Your task to perform on an android device: stop showing notifications on the lock screen Image 0: 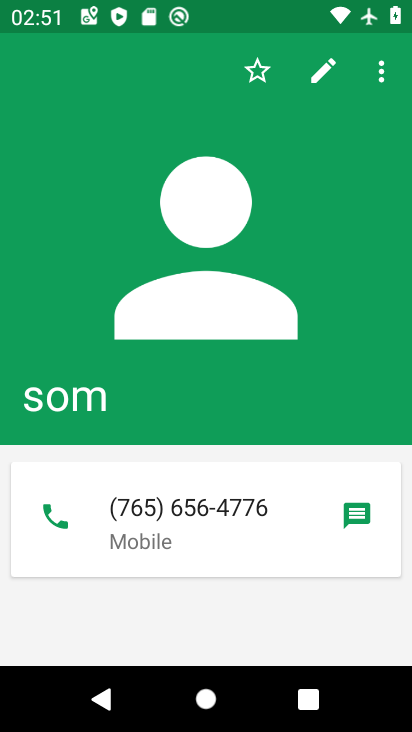
Step 0: press home button
Your task to perform on an android device: stop showing notifications on the lock screen Image 1: 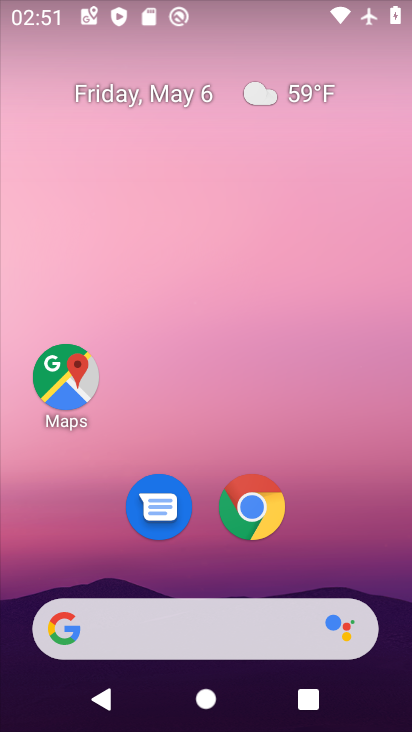
Step 1: drag from (333, 573) to (365, 144)
Your task to perform on an android device: stop showing notifications on the lock screen Image 2: 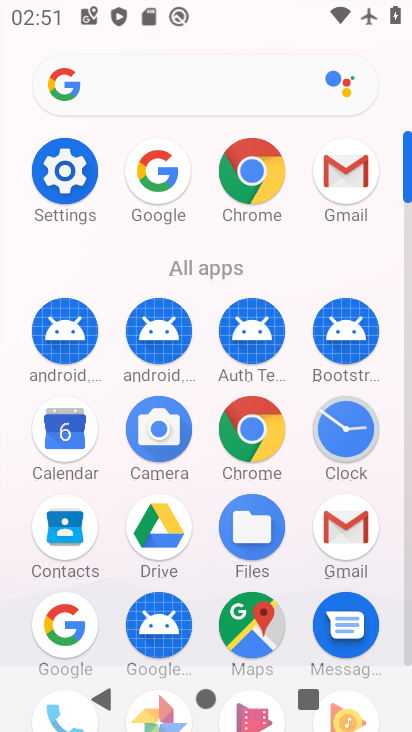
Step 2: click (49, 177)
Your task to perform on an android device: stop showing notifications on the lock screen Image 3: 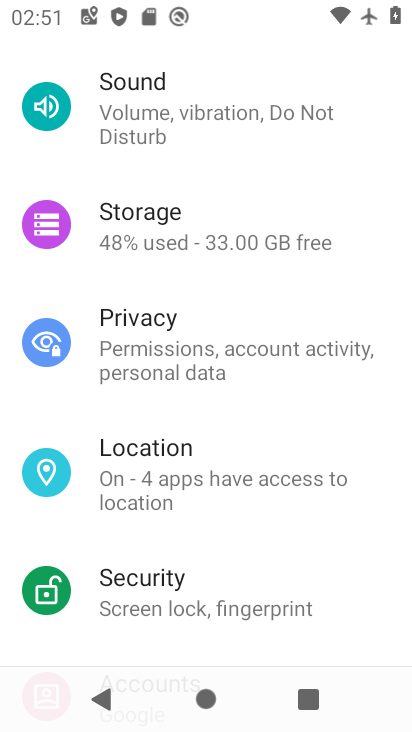
Step 3: drag from (205, 243) to (214, 674)
Your task to perform on an android device: stop showing notifications on the lock screen Image 4: 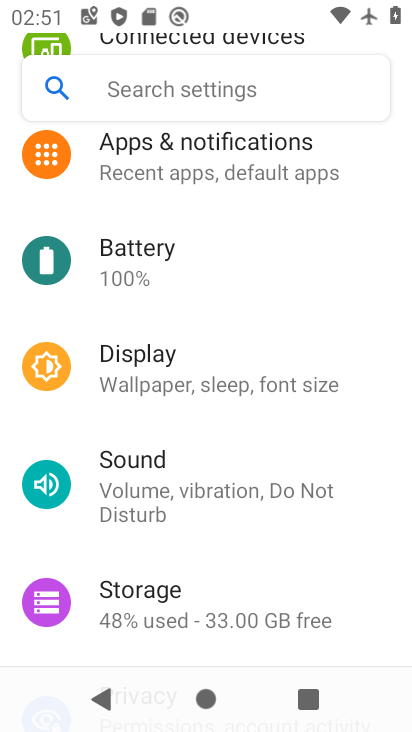
Step 4: click (253, 176)
Your task to perform on an android device: stop showing notifications on the lock screen Image 5: 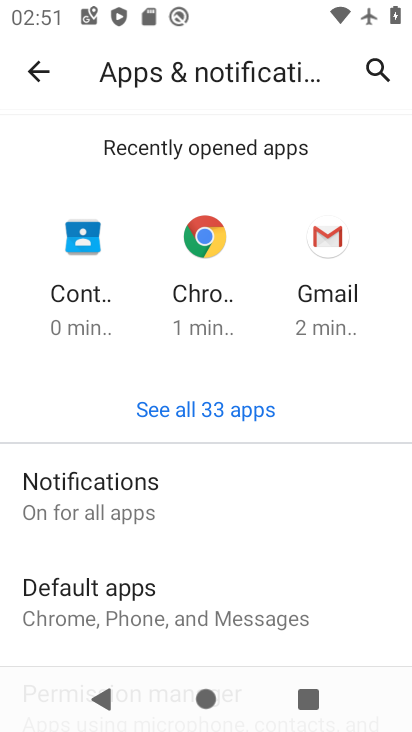
Step 5: drag from (228, 595) to (228, 308)
Your task to perform on an android device: stop showing notifications on the lock screen Image 6: 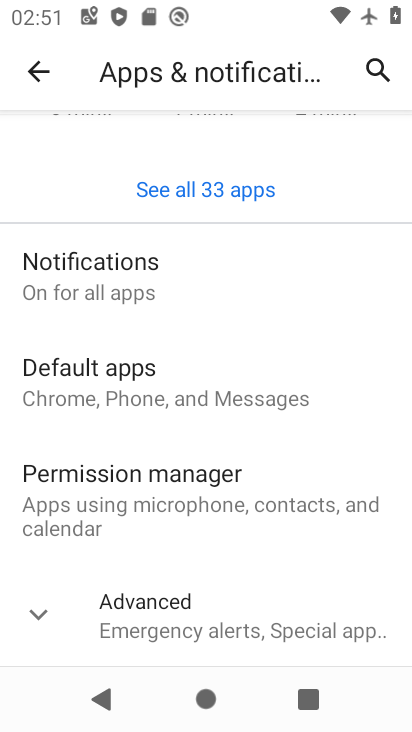
Step 6: click (144, 294)
Your task to perform on an android device: stop showing notifications on the lock screen Image 7: 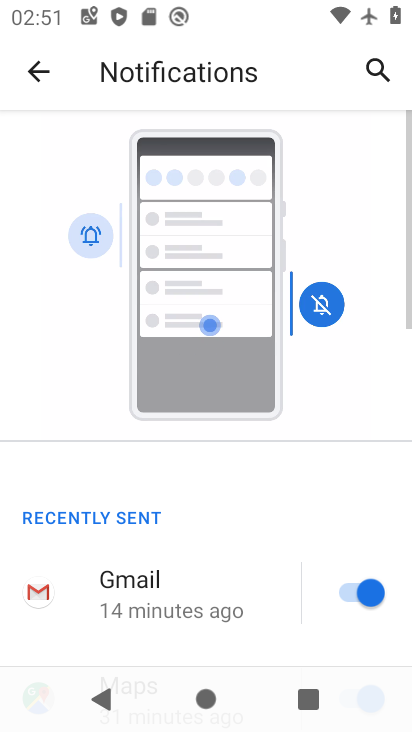
Step 7: drag from (222, 575) to (243, 229)
Your task to perform on an android device: stop showing notifications on the lock screen Image 8: 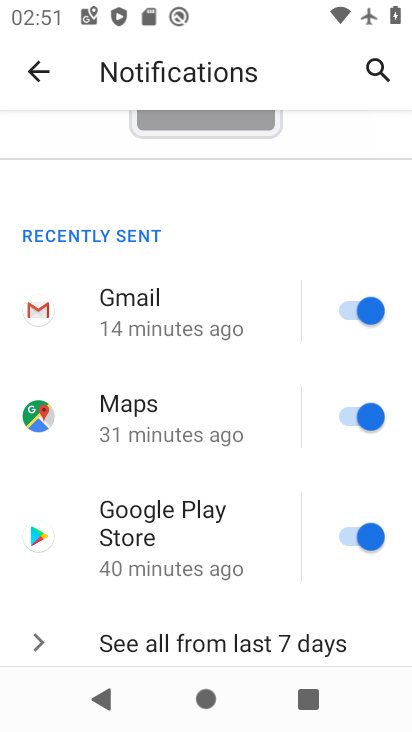
Step 8: drag from (204, 642) to (227, 273)
Your task to perform on an android device: stop showing notifications on the lock screen Image 9: 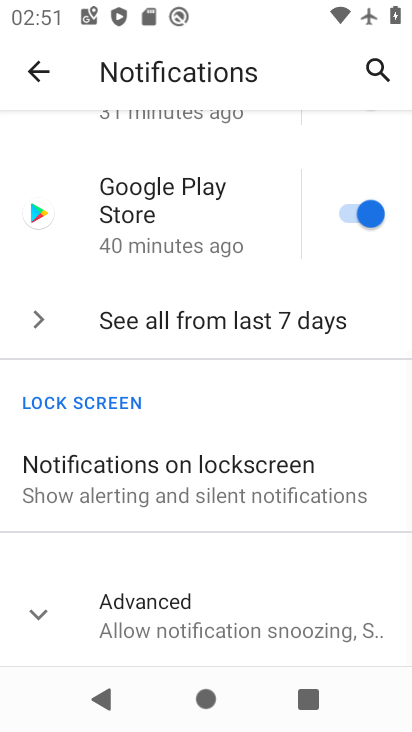
Step 9: click (212, 492)
Your task to perform on an android device: stop showing notifications on the lock screen Image 10: 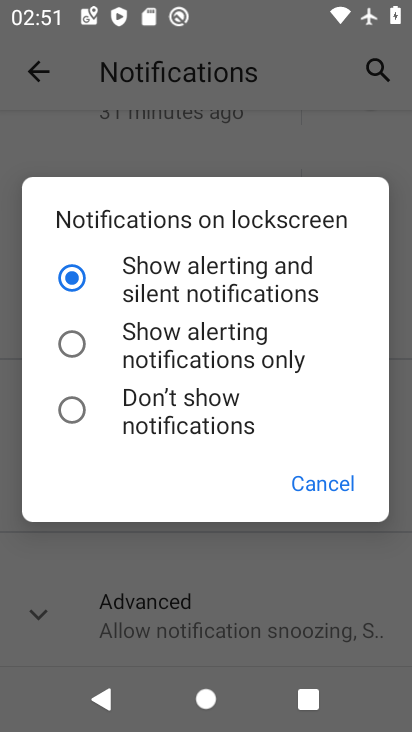
Step 10: click (206, 434)
Your task to perform on an android device: stop showing notifications on the lock screen Image 11: 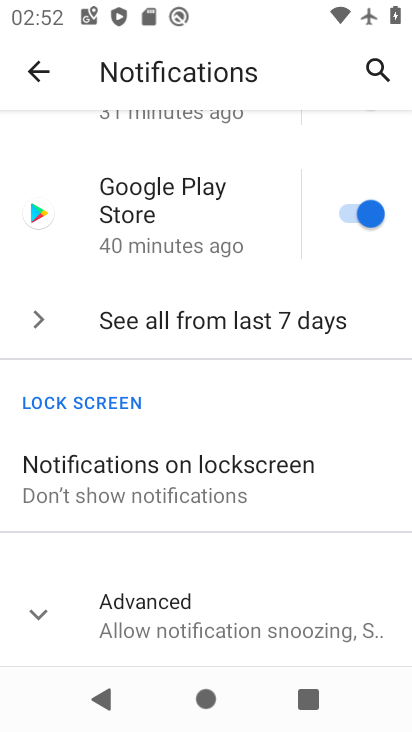
Step 11: task complete